Your task to perform on an android device: turn smart compose on in the gmail app Image 0: 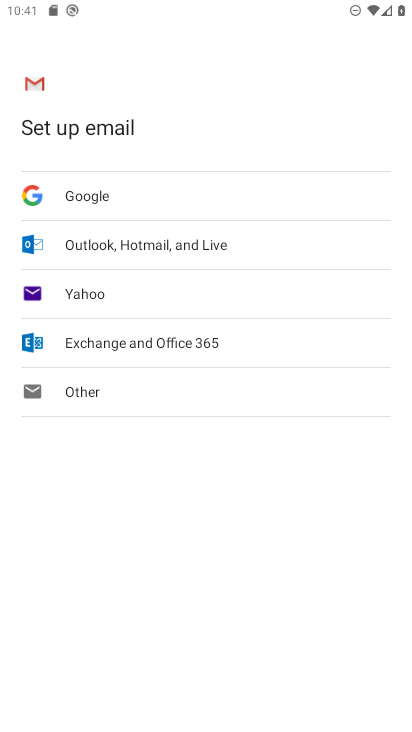
Step 0: press home button
Your task to perform on an android device: turn smart compose on in the gmail app Image 1: 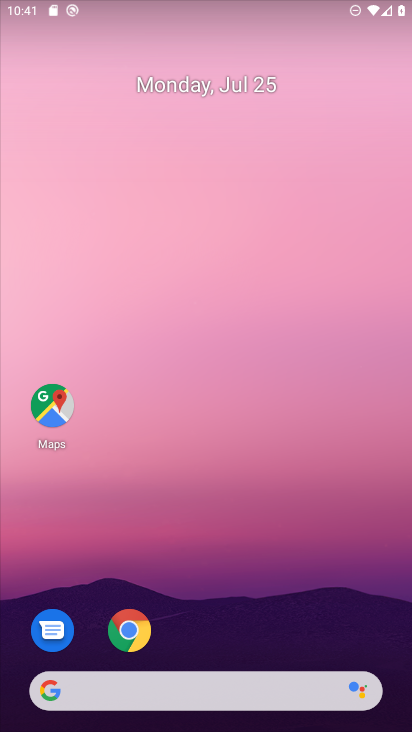
Step 1: drag from (249, 558) to (226, 79)
Your task to perform on an android device: turn smart compose on in the gmail app Image 2: 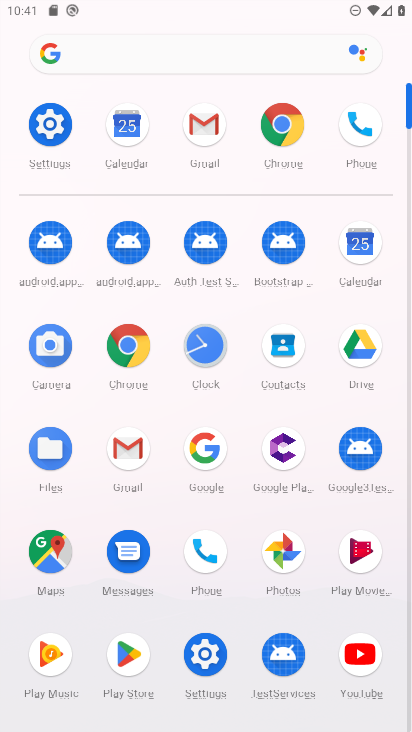
Step 2: click (209, 125)
Your task to perform on an android device: turn smart compose on in the gmail app Image 3: 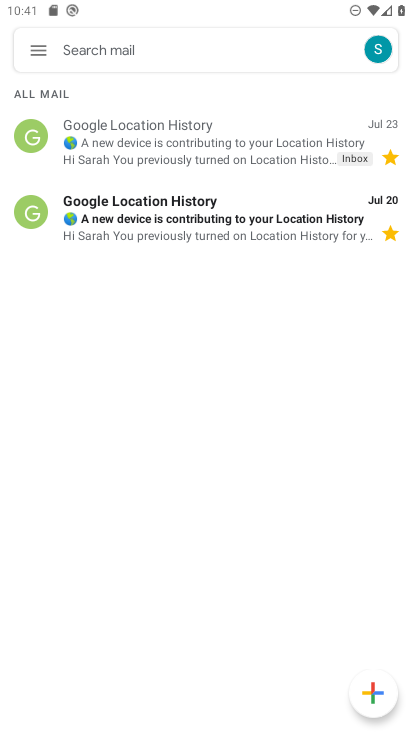
Step 3: click (31, 58)
Your task to perform on an android device: turn smart compose on in the gmail app Image 4: 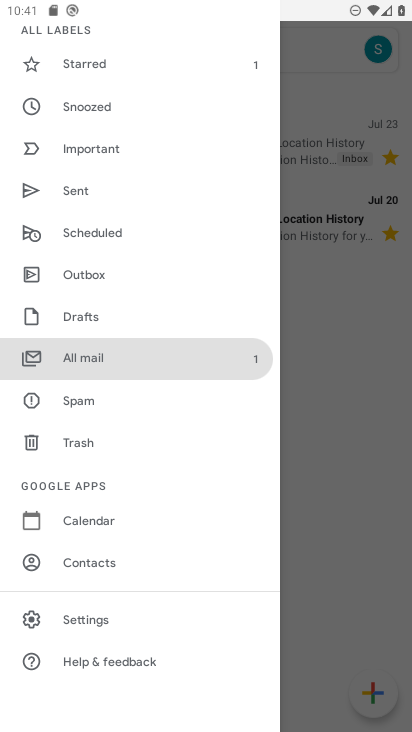
Step 4: click (112, 625)
Your task to perform on an android device: turn smart compose on in the gmail app Image 5: 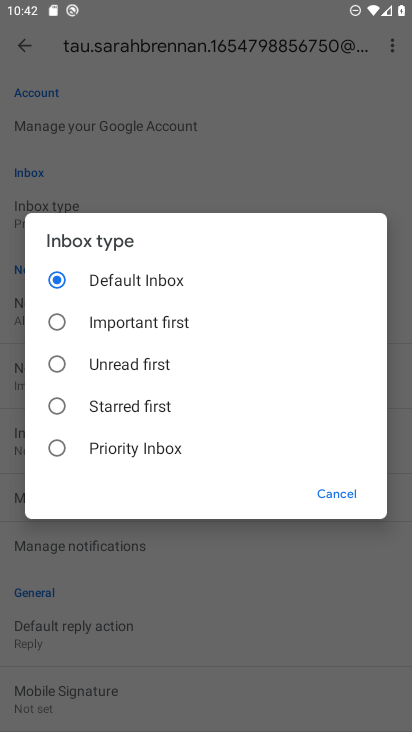
Step 5: click (345, 489)
Your task to perform on an android device: turn smart compose on in the gmail app Image 6: 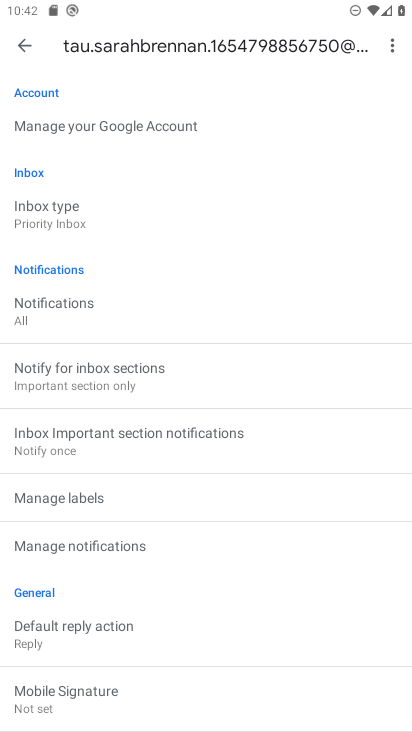
Step 6: task complete